Your task to perform on an android device: check data usage Image 0: 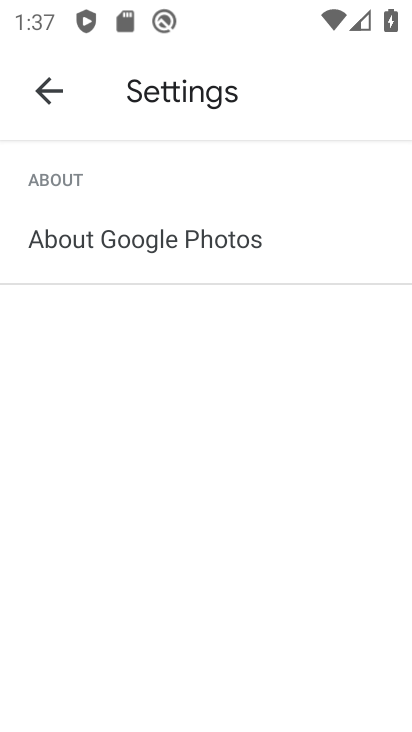
Step 0: press home button
Your task to perform on an android device: check data usage Image 1: 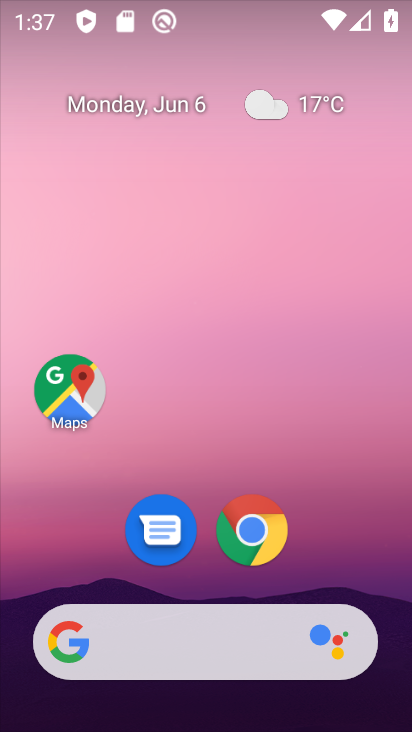
Step 1: drag from (355, 580) to (319, 201)
Your task to perform on an android device: check data usage Image 2: 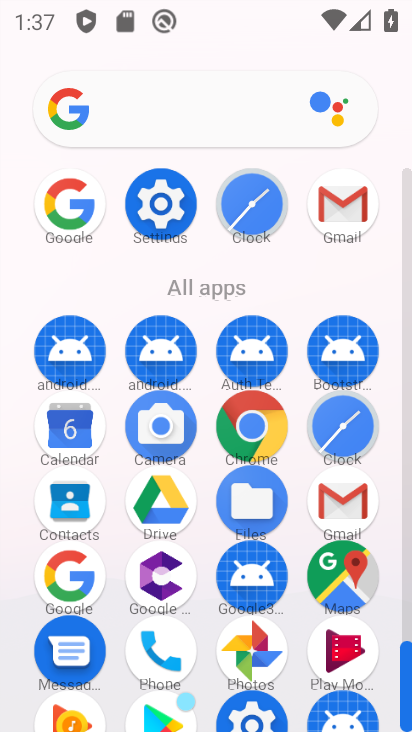
Step 2: click (161, 214)
Your task to perform on an android device: check data usage Image 3: 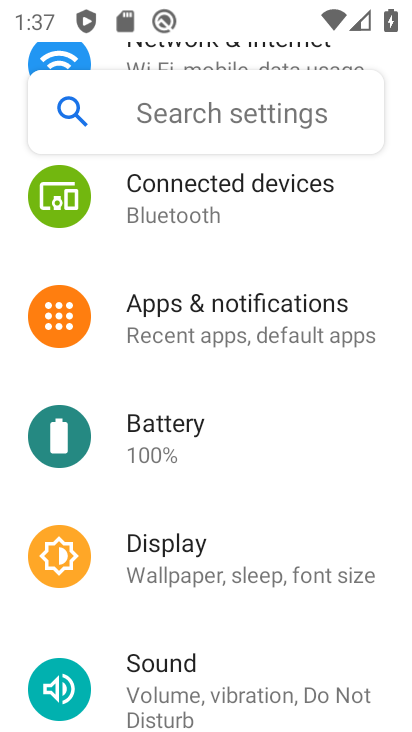
Step 3: drag from (159, 218) to (191, 550)
Your task to perform on an android device: check data usage Image 4: 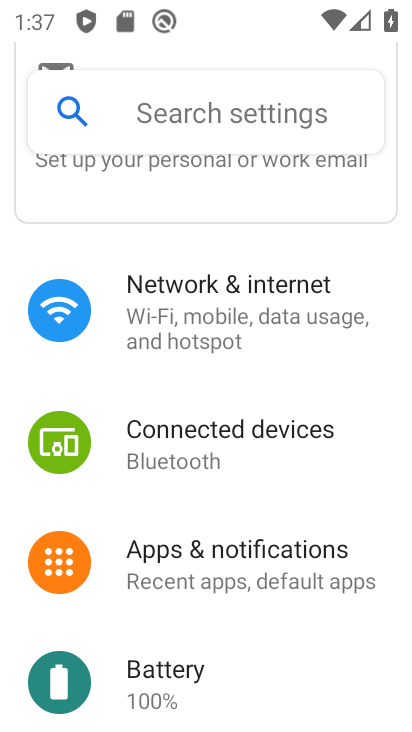
Step 4: click (157, 302)
Your task to perform on an android device: check data usage Image 5: 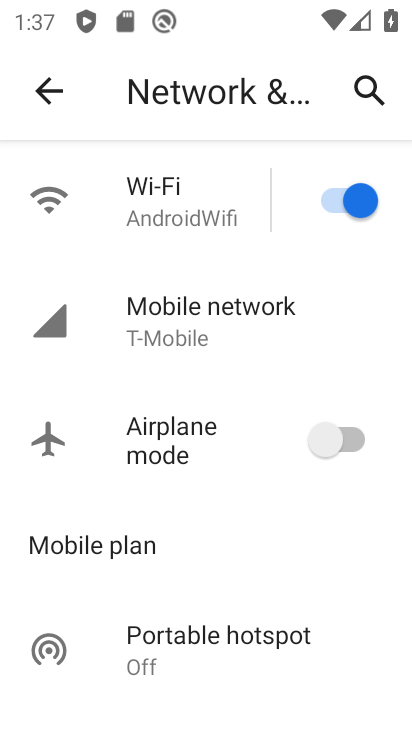
Step 5: click (155, 302)
Your task to perform on an android device: check data usage Image 6: 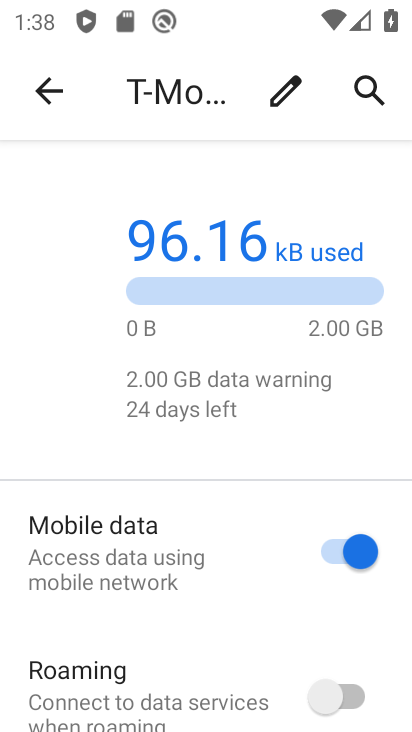
Step 6: task complete